Your task to perform on an android device: Open Youtube and go to "Your channel" Image 0: 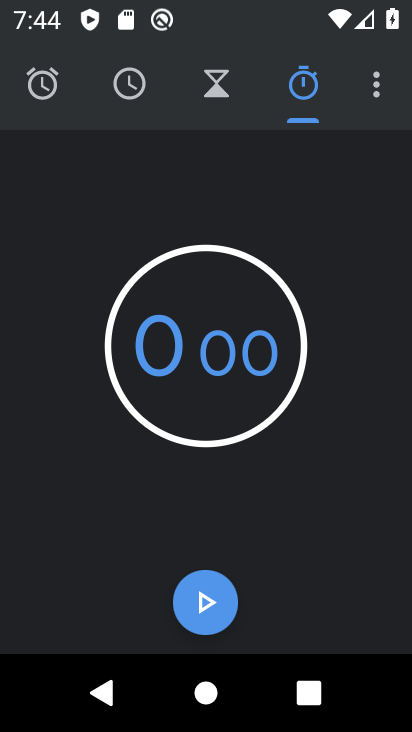
Step 0: press home button
Your task to perform on an android device: Open Youtube and go to "Your channel" Image 1: 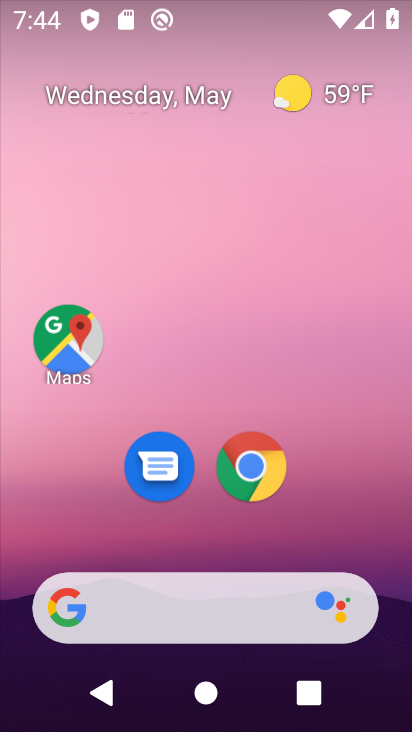
Step 1: drag from (322, 480) to (321, 202)
Your task to perform on an android device: Open Youtube and go to "Your channel" Image 2: 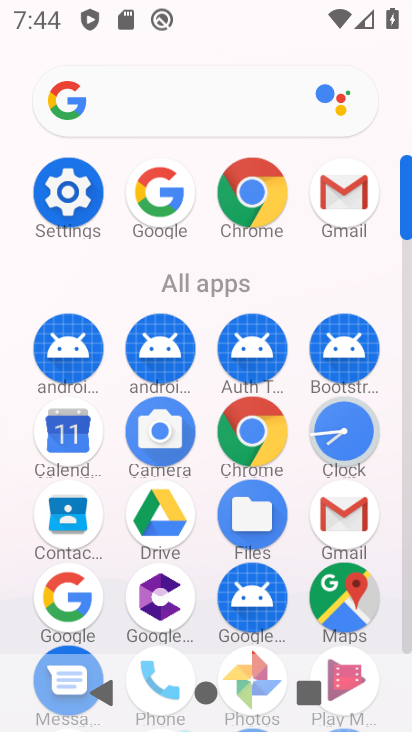
Step 2: drag from (292, 594) to (304, 196)
Your task to perform on an android device: Open Youtube and go to "Your channel" Image 3: 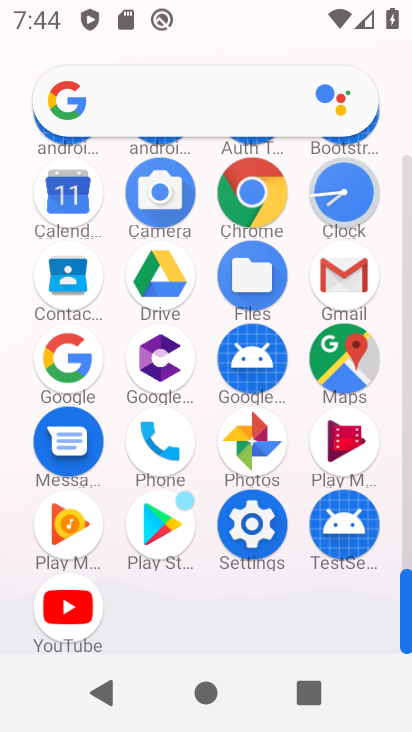
Step 3: click (52, 620)
Your task to perform on an android device: Open Youtube and go to "Your channel" Image 4: 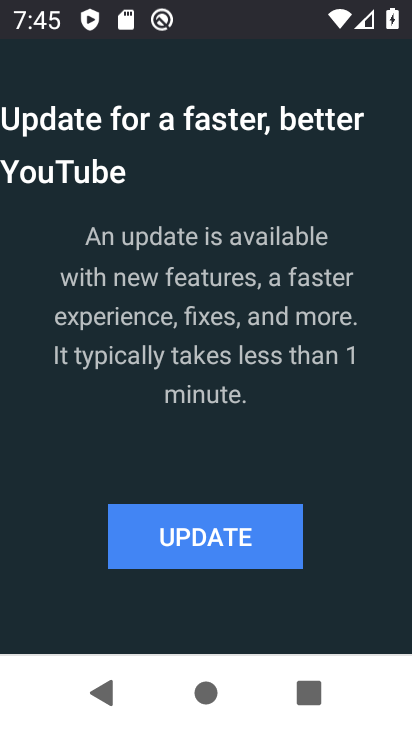
Step 4: task complete